Your task to perform on an android device: open a bookmark in the chrome app Image 0: 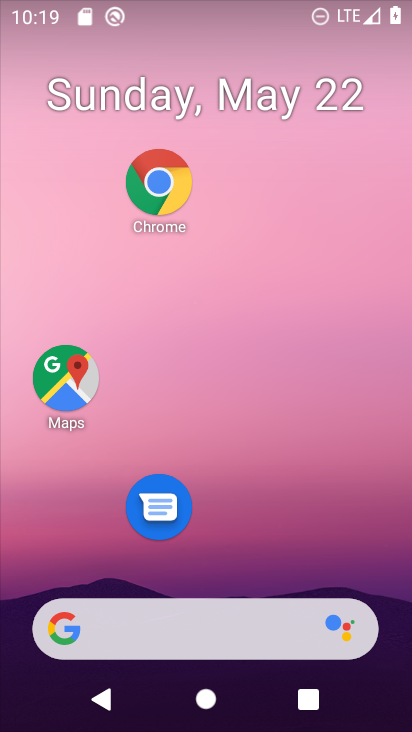
Step 0: click (144, 151)
Your task to perform on an android device: open a bookmark in the chrome app Image 1: 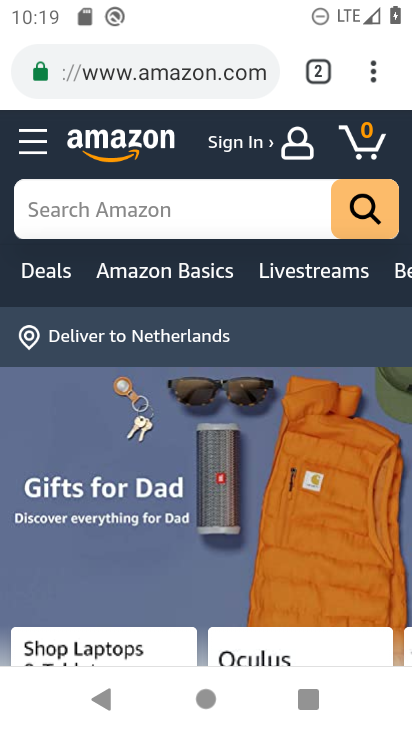
Step 1: click (369, 69)
Your task to perform on an android device: open a bookmark in the chrome app Image 2: 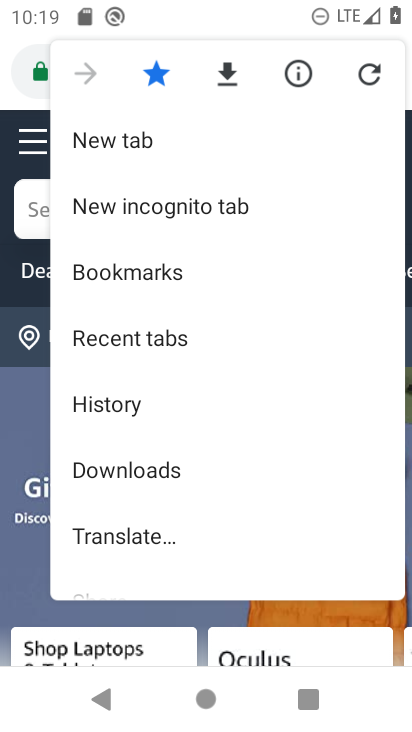
Step 2: click (174, 276)
Your task to perform on an android device: open a bookmark in the chrome app Image 3: 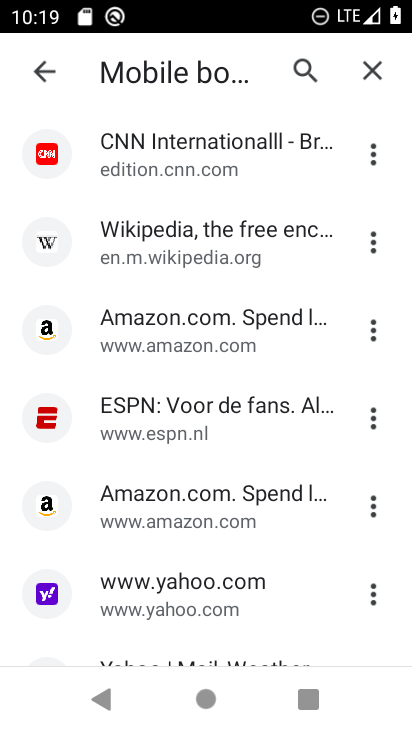
Step 3: click (215, 469)
Your task to perform on an android device: open a bookmark in the chrome app Image 4: 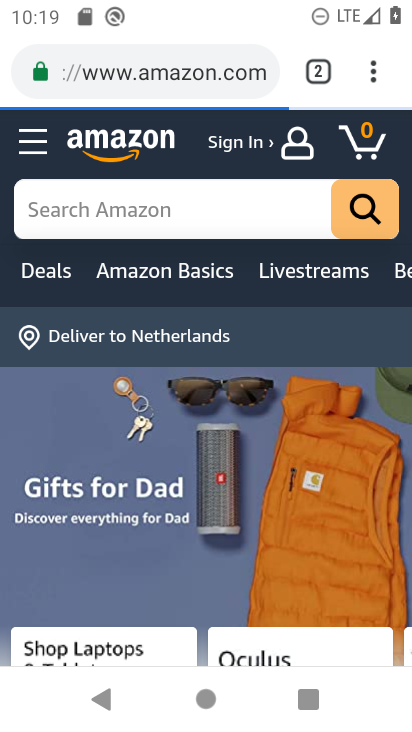
Step 4: click (221, 415)
Your task to perform on an android device: open a bookmark in the chrome app Image 5: 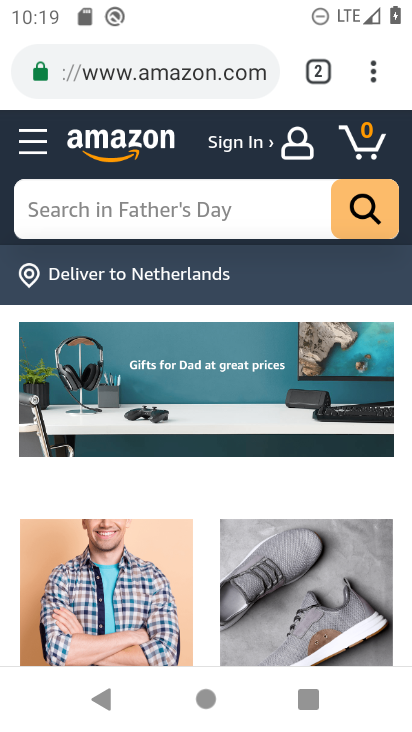
Step 5: task complete